Your task to perform on an android device: set an alarm Image 0: 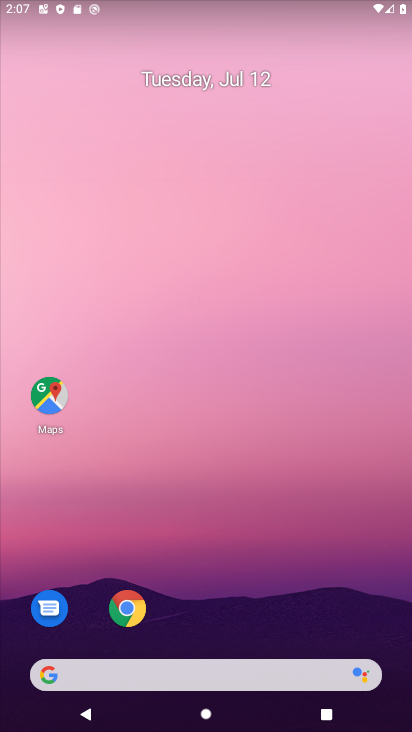
Step 0: drag from (294, 551) to (277, 52)
Your task to perform on an android device: set an alarm Image 1: 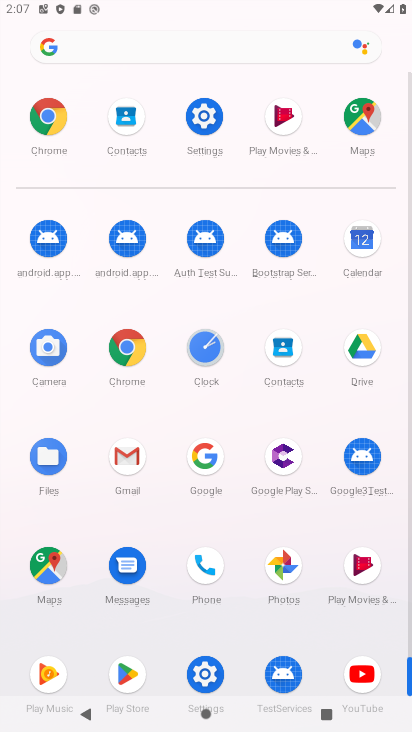
Step 1: click (202, 353)
Your task to perform on an android device: set an alarm Image 2: 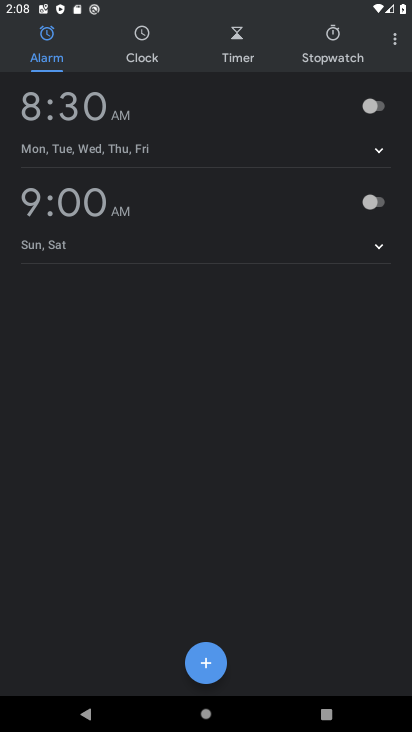
Step 2: click (219, 654)
Your task to perform on an android device: set an alarm Image 3: 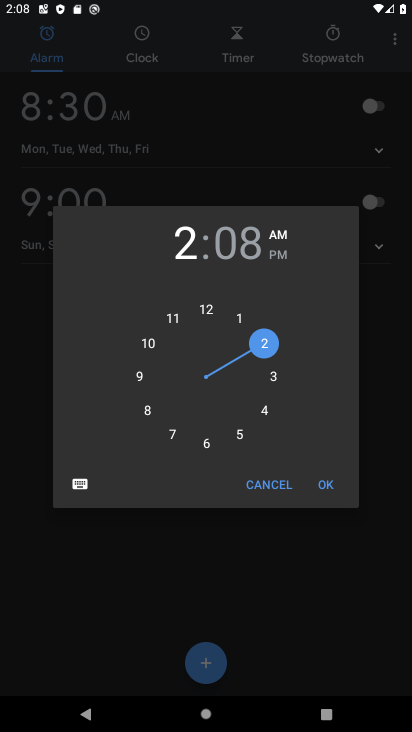
Step 3: click (328, 487)
Your task to perform on an android device: set an alarm Image 4: 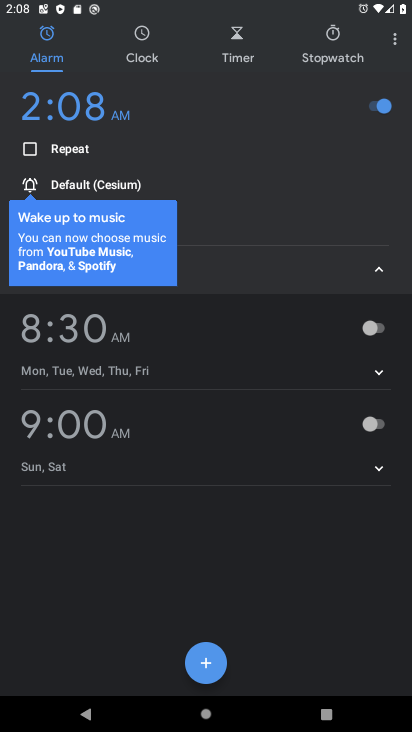
Step 4: task complete